Your task to perform on an android device: search for starred emails in the gmail app Image 0: 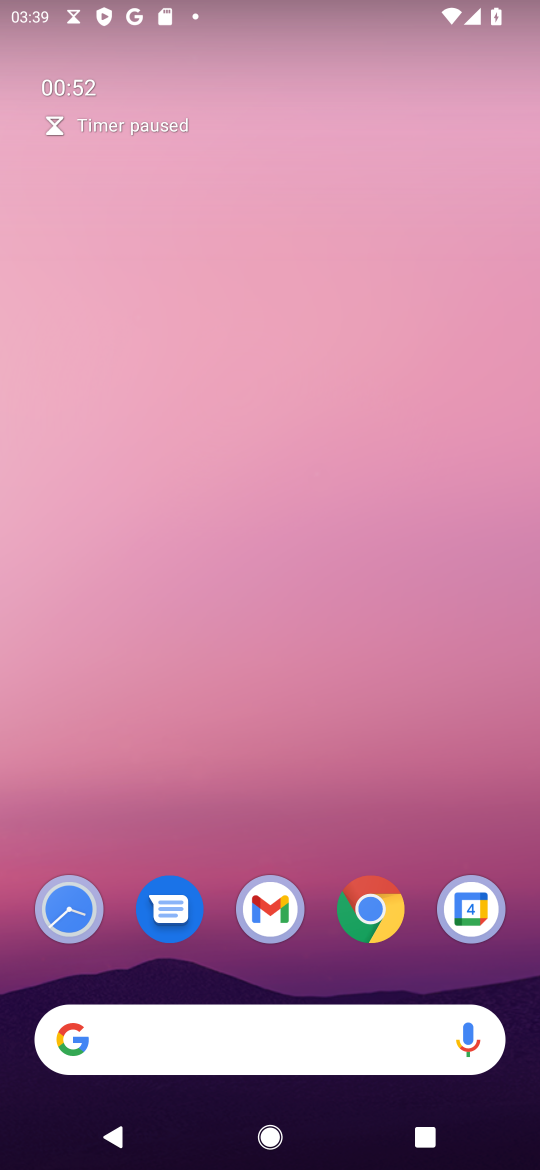
Step 0: click (289, 897)
Your task to perform on an android device: search for starred emails in the gmail app Image 1: 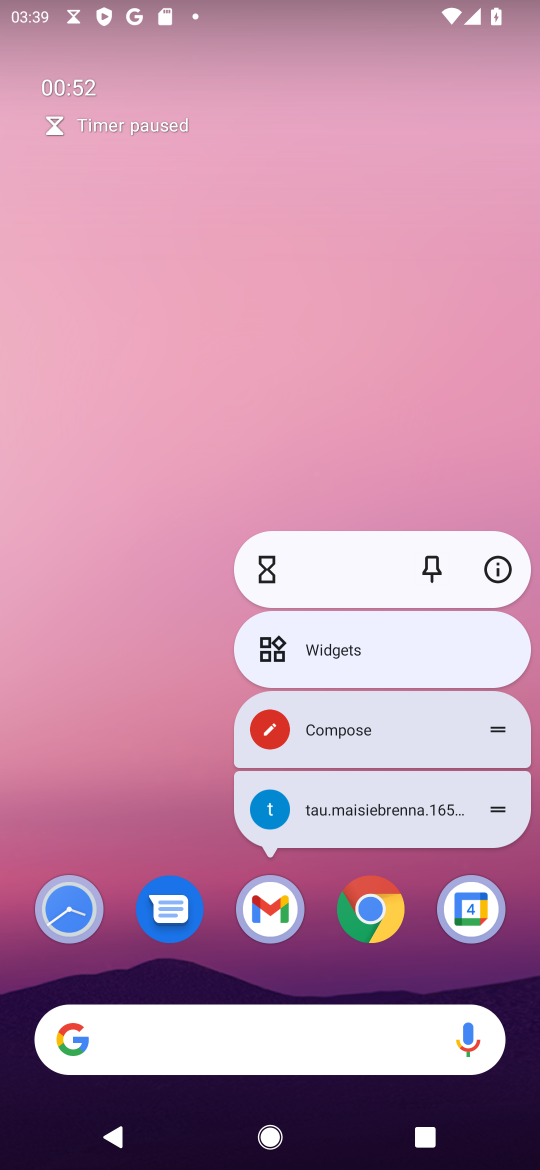
Step 1: click (277, 911)
Your task to perform on an android device: search for starred emails in the gmail app Image 2: 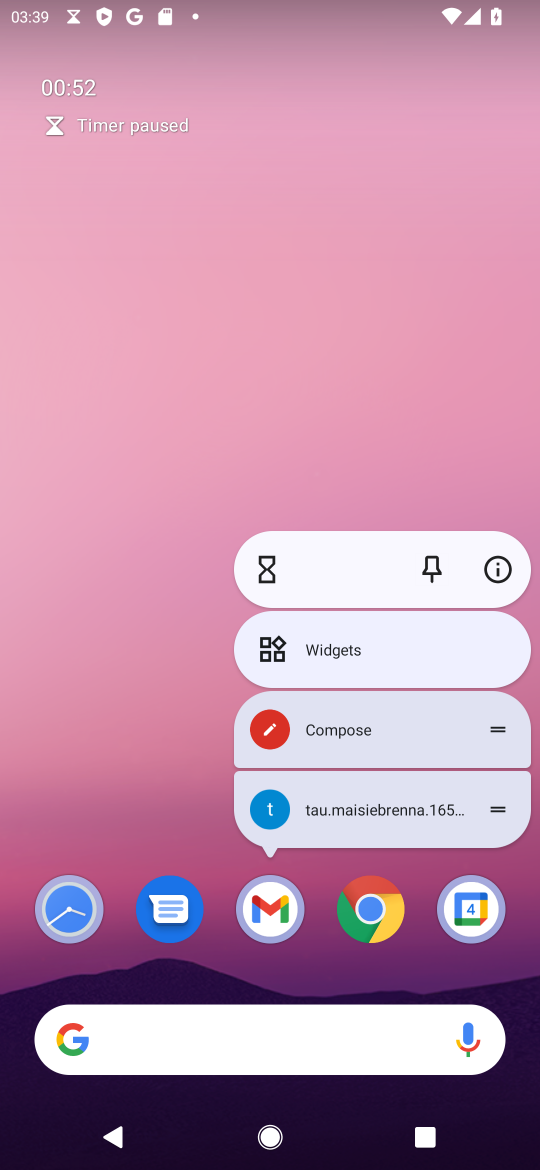
Step 2: click (278, 901)
Your task to perform on an android device: search for starred emails in the gmail app Image 3: 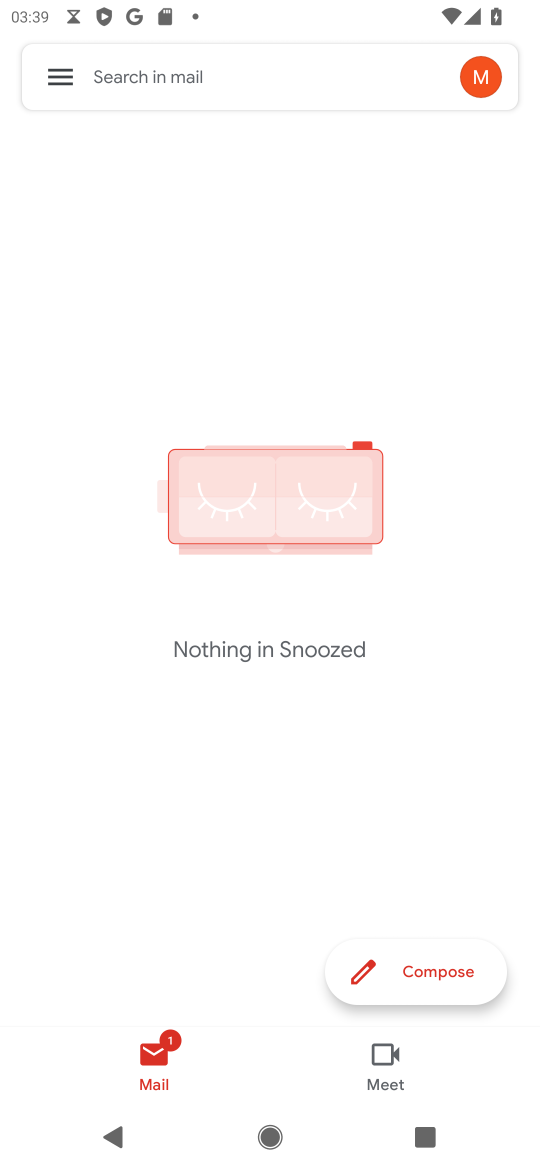
Step 3: click (50, 79)
Your task to perform on an android device: search for starred emails in the gmail app Image 4: 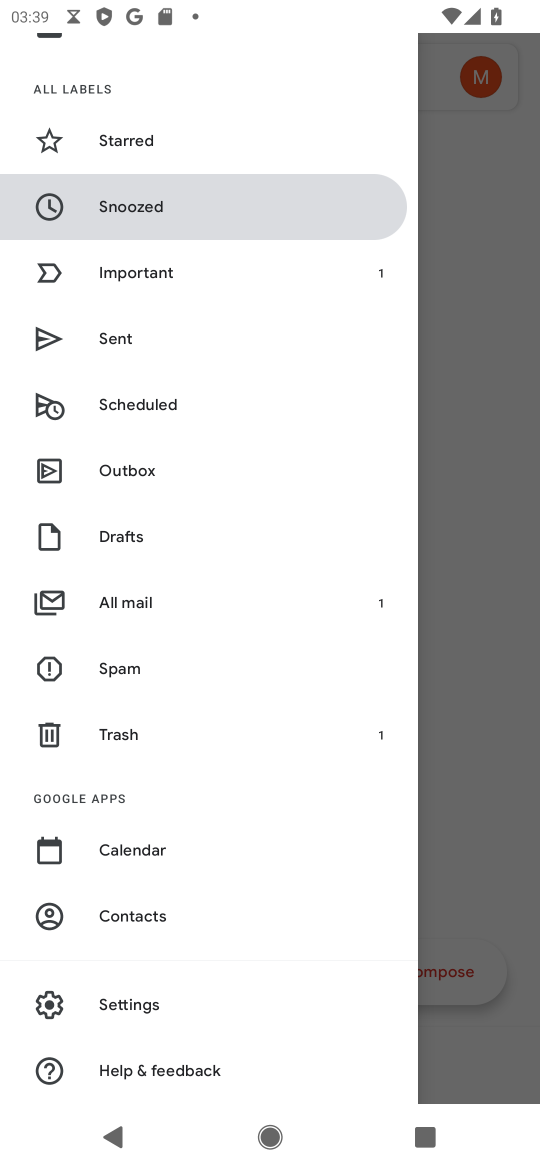
Step 4: click (148, 148)
Your task to perform on an android device: search for starred emails in the gmail app Image 5: 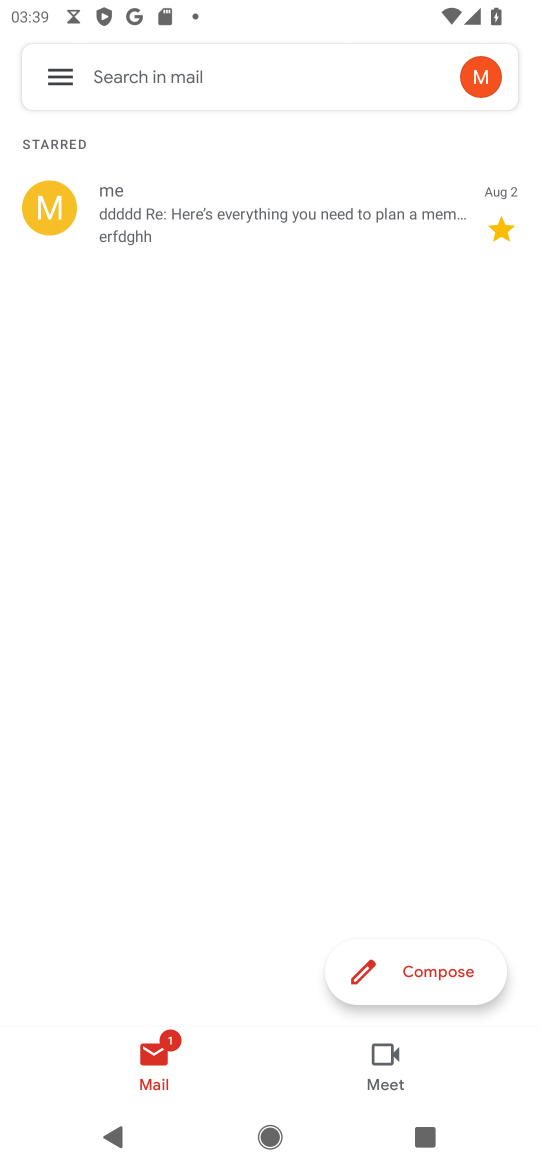
Step 5: task complete